Your task to perform on an android device: check storage Image 0: 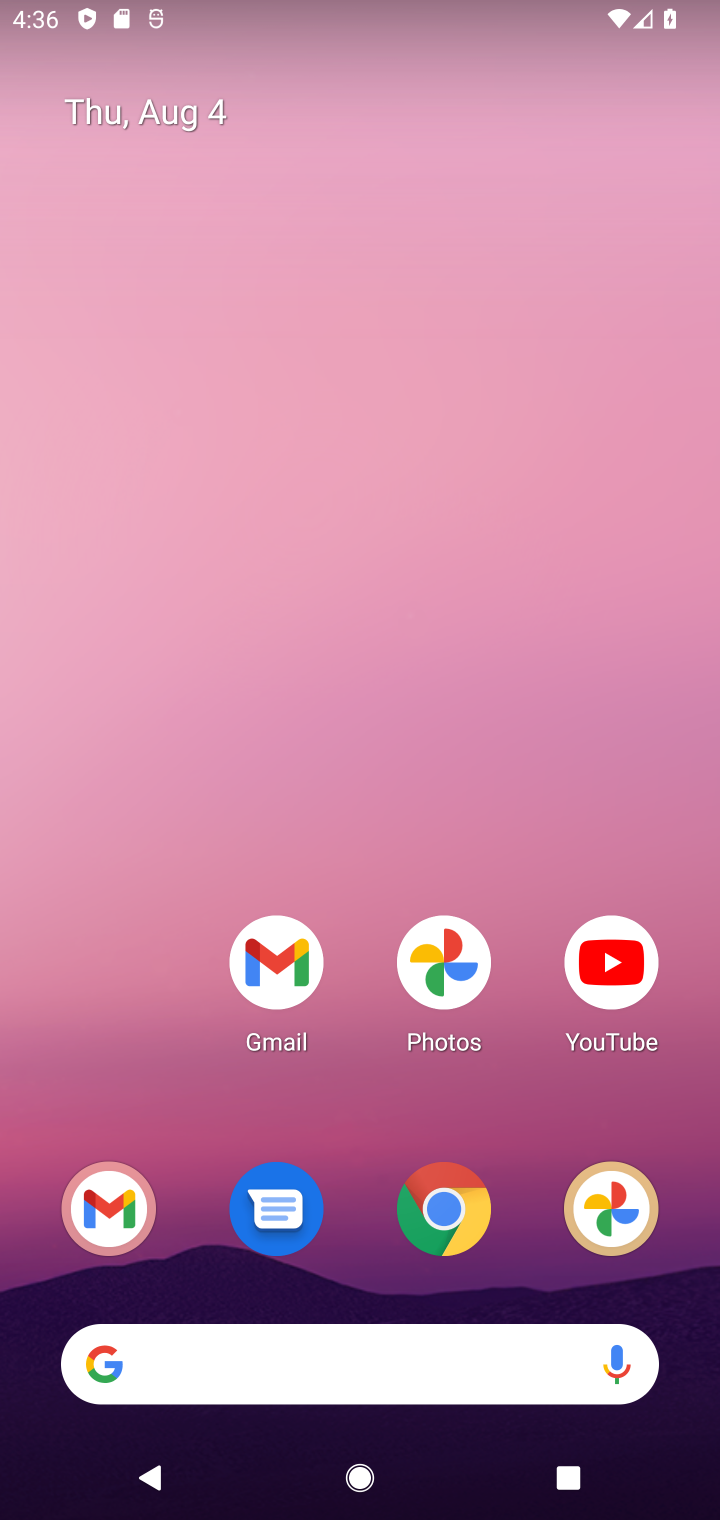
Step 0: drag from (352, 759) to (389, 218)
Your task to perform on an android device: check storage Image 1: 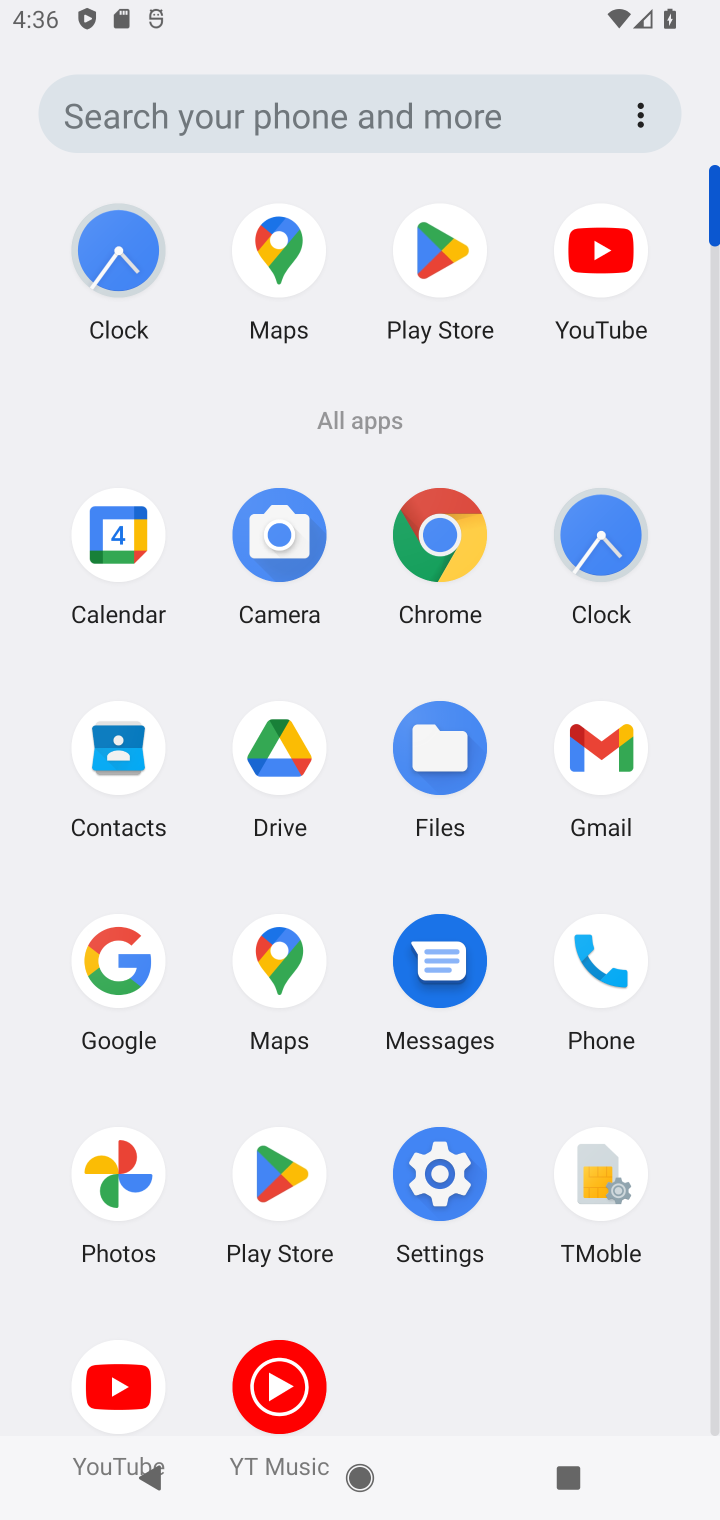
Step 1: click (458, 1187)
Your task to perform on an android device: check storage Image 2: 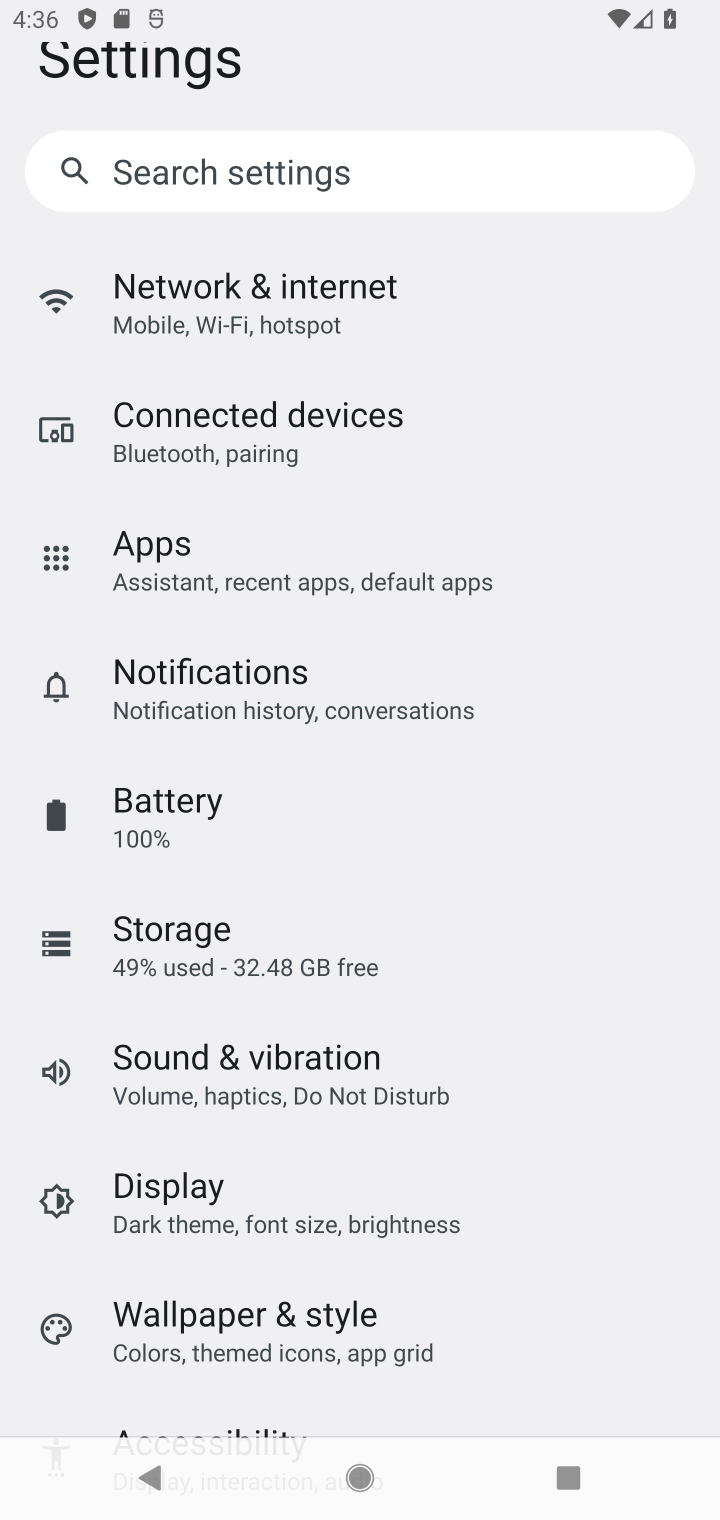
Step 2: click (183, 961)
Your task to perform on an android device: check storage Image 3: 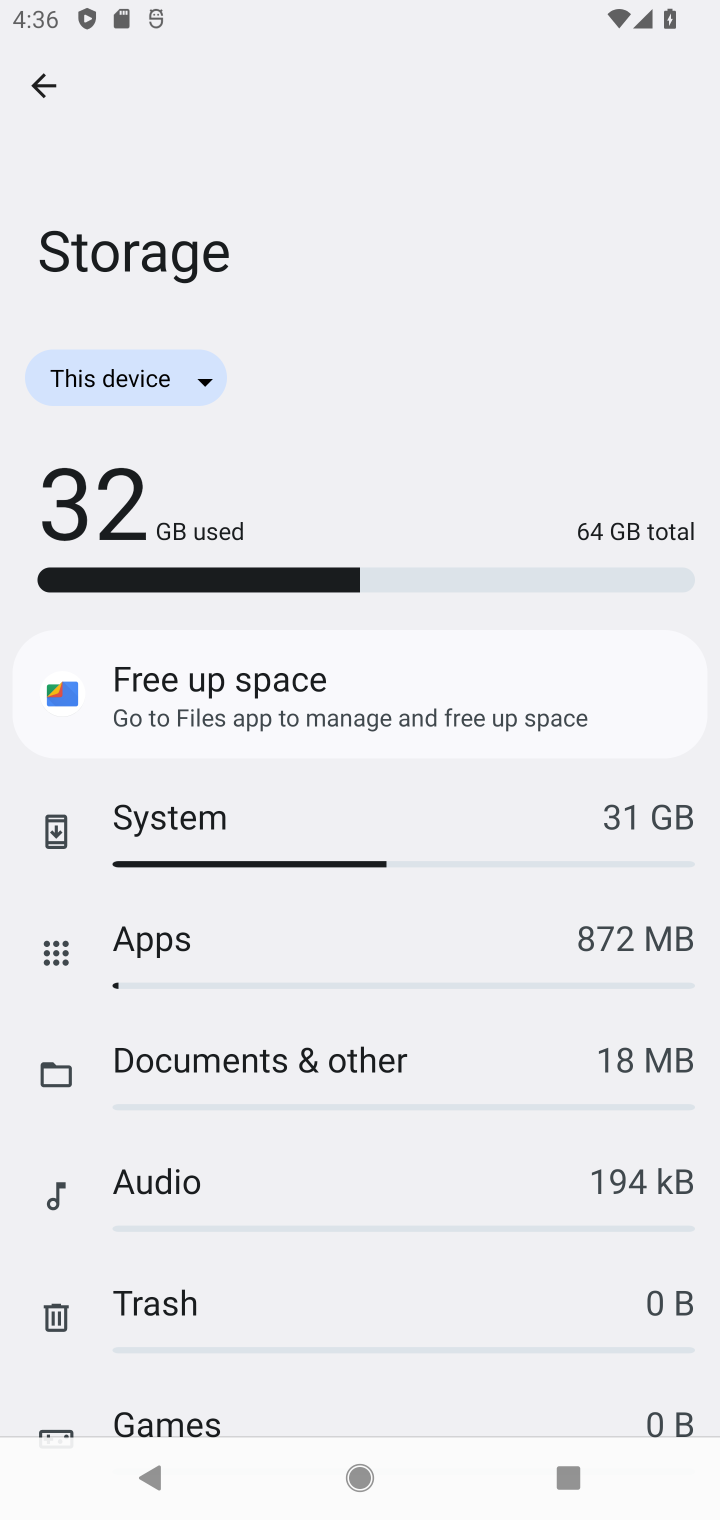
Step 3: task complete